Your task to perform on an android device: set default search engine in the chrome app Image 0: 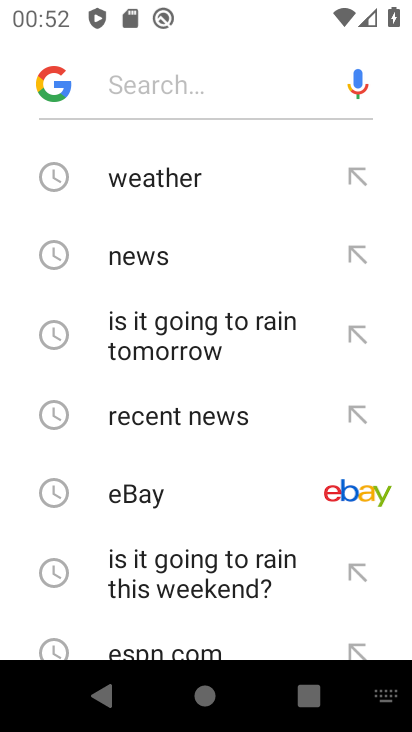
Step 0: press home button
Your task to perform on an android device: set default search engine in the chrome app Image 1: 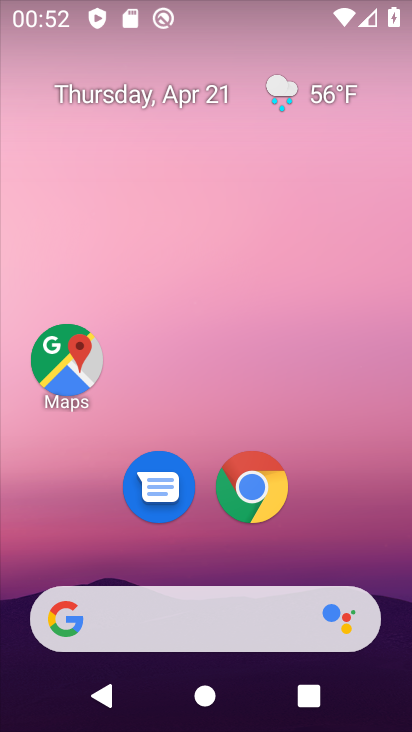
Step 1: click (265, 498)
Your task to perform on an android device: set default search engine in the chrome app Image 2: 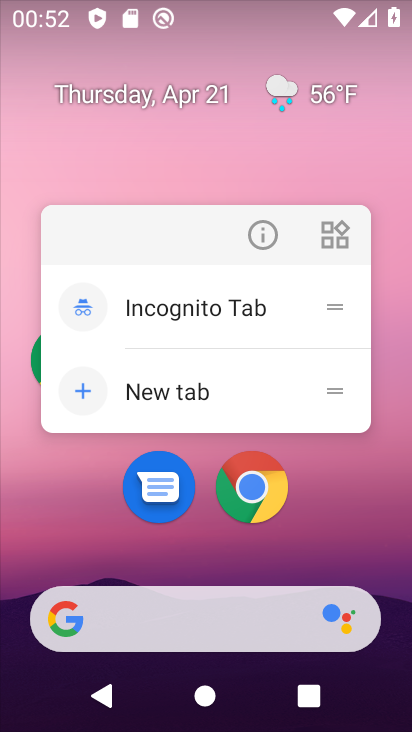
Step 2: click (263, 496)
Your task to perform on an android device: set default search engine in the chrome app Image 3: 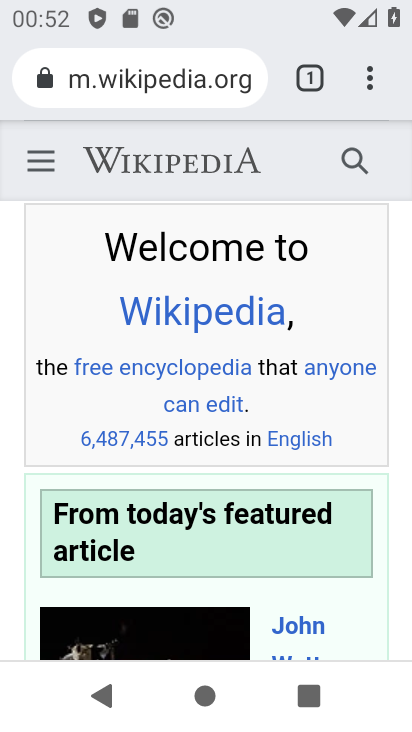
Step 3: click (362, 74)
Your task to perform on an android device: set default search engine in the chrome app Image 4: 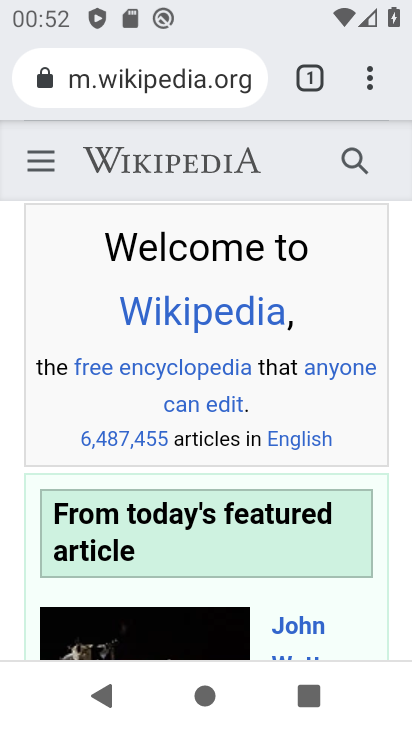
Step 4: click (357, 80)
Your task to perform on an android device: set default search engine in the chrome app Image 5: 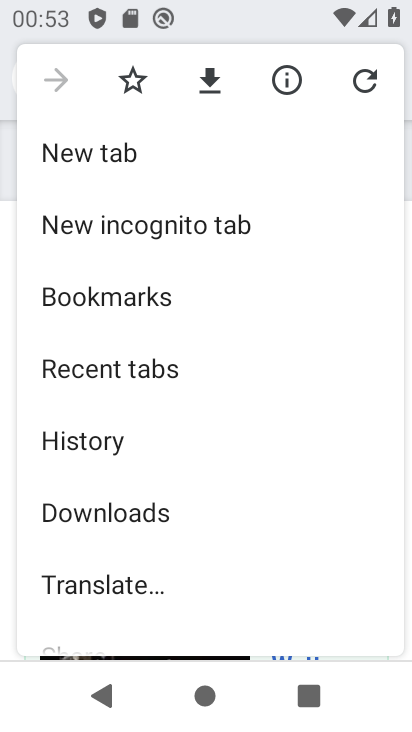
Step 5: drag from (226, 517) to (178, 389)
Your task to perform on an android device: set default search engine in the chrome app Image 6: 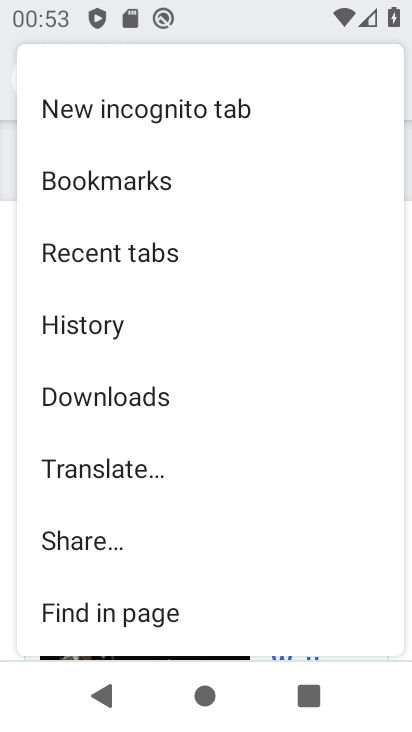
Step 6: drag from (174, 571) to (154, 483)
Your task to perform on an android device: set default search engine in the chrome app Image 7: 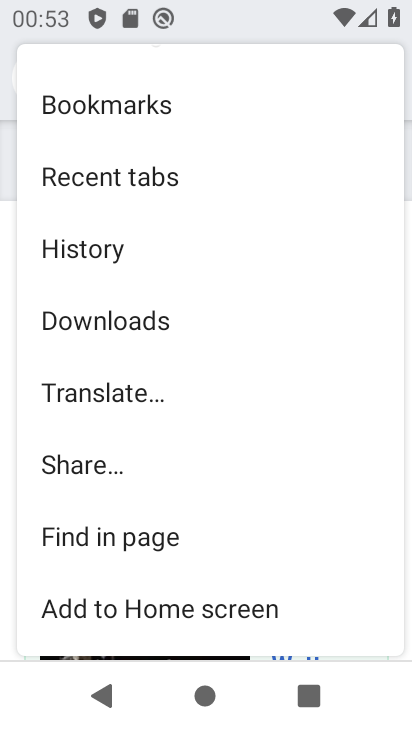
Step 7: drag from (172, 583) to (165, 459)
Your task to perform on an android device: set default search engine in the chrome app Image 8: 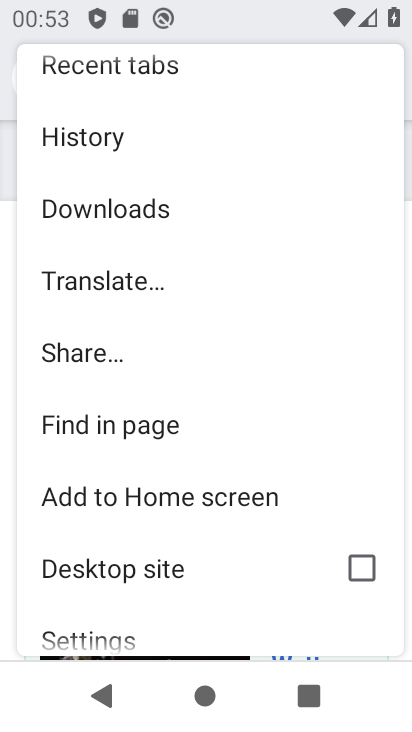
Step 8: drag from (179, 584) to (164, 459)
Your task to perform on an android device: set default search engine in the chrome app Image 9: 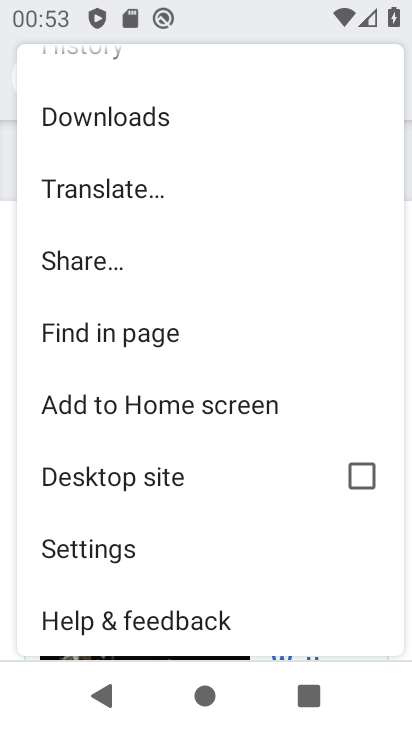
Step 9: click (130, 563)
Your task to perform on an android device: set default search engine in the chrome app Image 10: 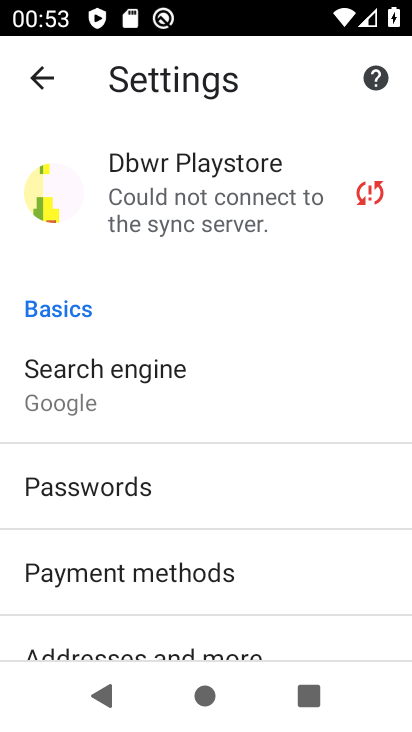
Step 10: drag from (124, 561) to (130, 475)
Your task to perform on an android device: set default search engine in the chrome app Image 11: 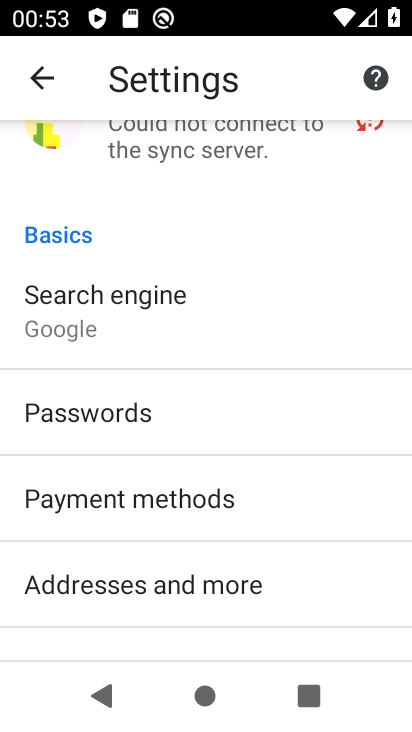
Step 11: click (142, 311)
Your task to perform on an android device: set default search engine in the chrome app Image 12: 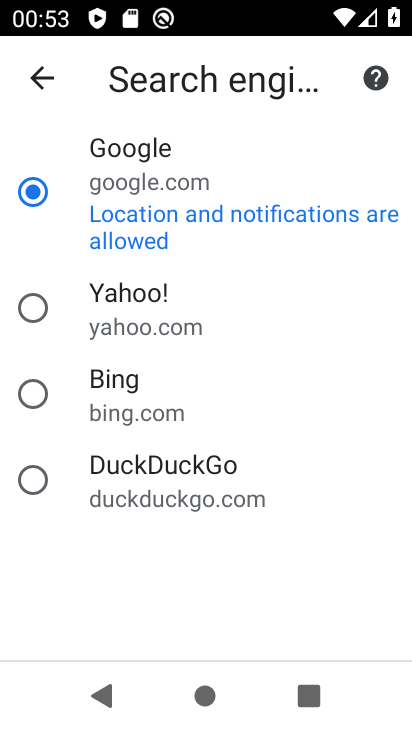
Step 12: click (127, 328)
Your task to perform on an android device: set default search engine in the chrome app Image 13: 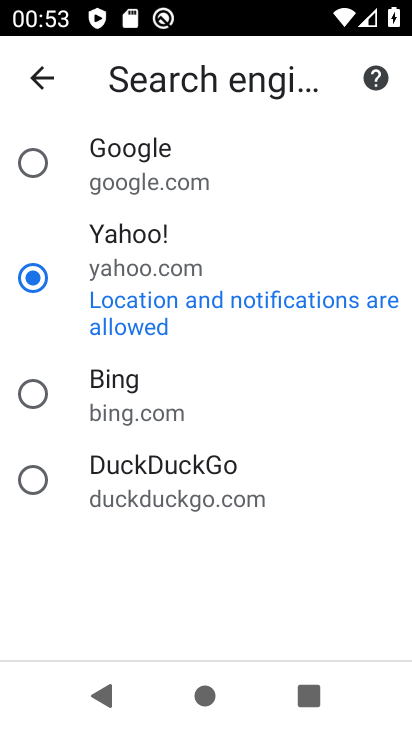
Step 13: task complete